Your task to perform on an android device: toggle location history Image 0: 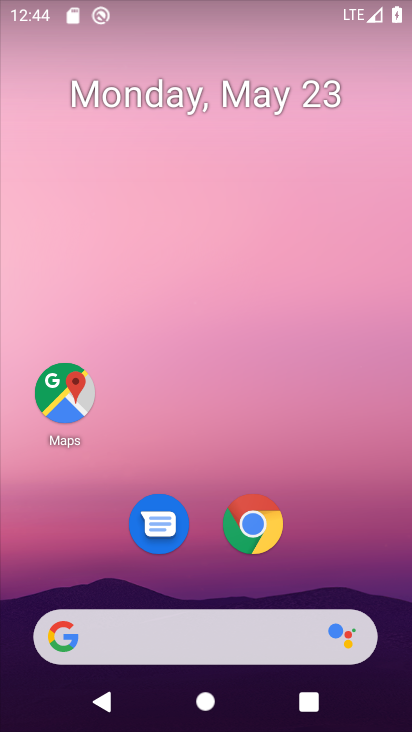
Step 0: drag from (247, 443) to (274, 12)
Your task to perform on an android device: toggle location history Image 1: 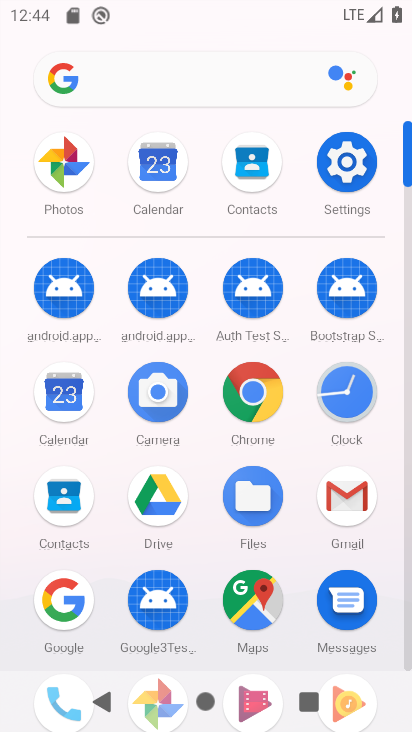
Step 1: click (348, 165)
Your task to perform on an android device: toggle location history Image 2: 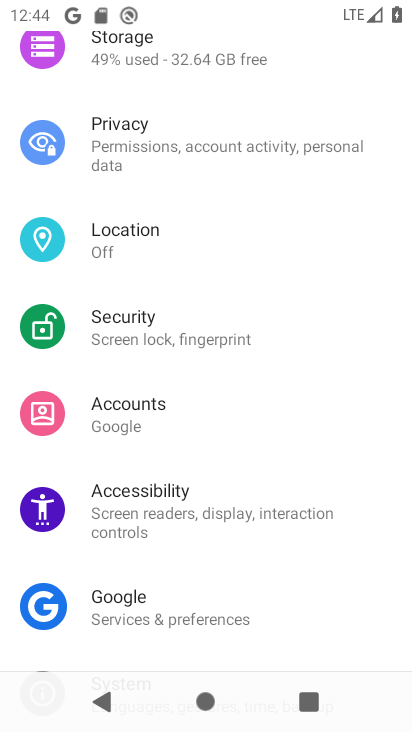
Step 2: drag from (245, 220) to (239, 288)
Your task to perform on an android device: toggle location history Image 3: 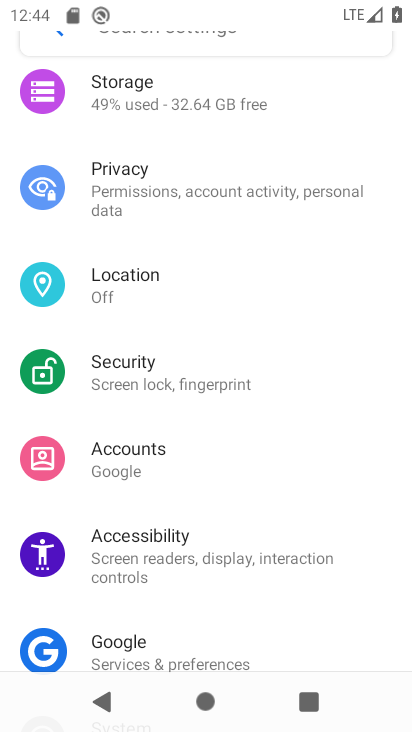
Step 3: click (239, 289)
Your task to perform on an android device: toggle location history Image 4: 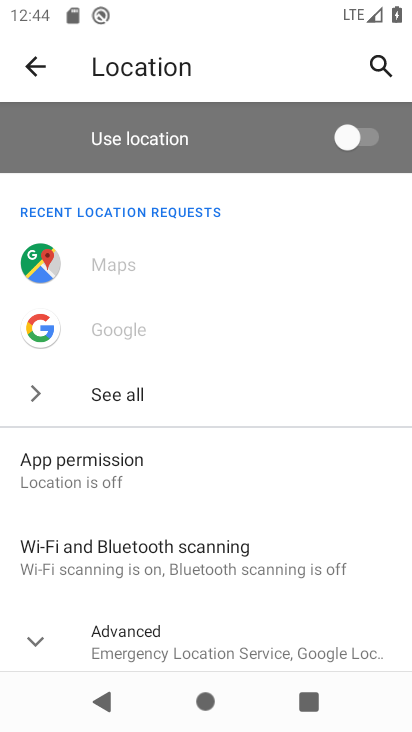
Step 4: click (356, 136)
Your task to perform on an android device: toggle location history Image 5: 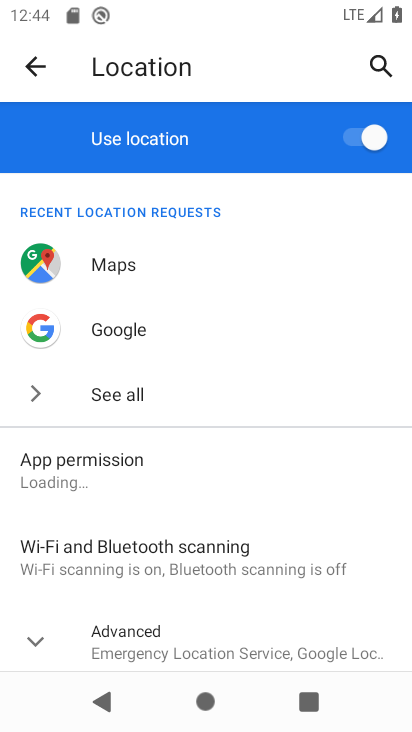
Step 5: click (36, 628)
Your task to perform on an android device: toggle location history Image 6: 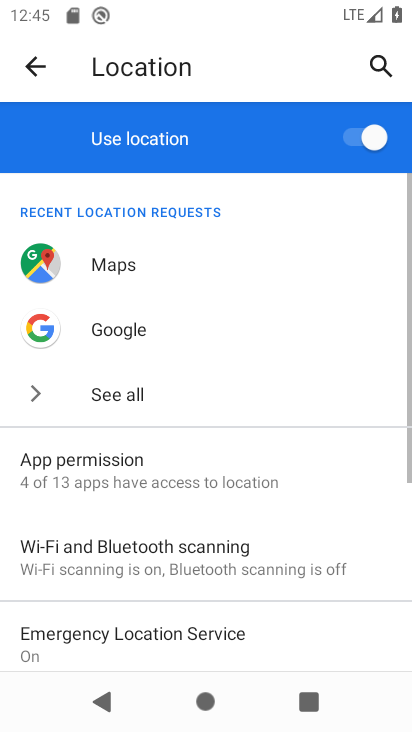
Step 6: drag from (223, 466) to (239, 94)
Your task to perform on an android device: toggle location history Image 7: 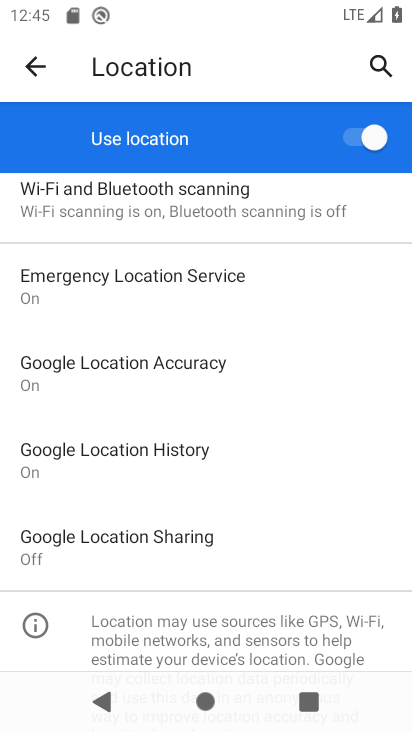
Step 7: click (145, 450)
Your task to perform on an android device: toggle location history Image 8: 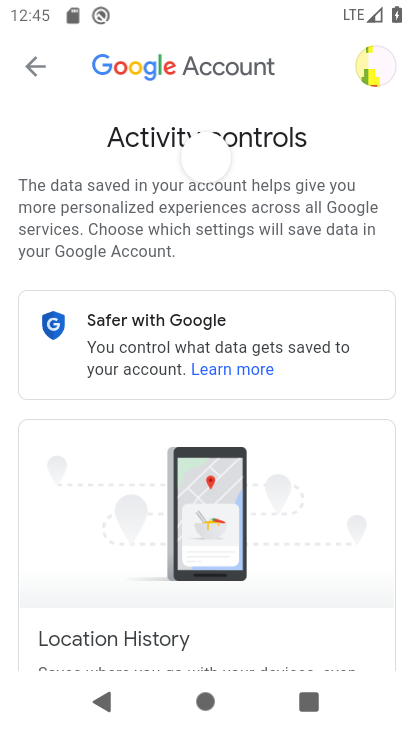
Step 8: drag from (286, 516) to (327, 125)
Your task to perform on an android device: toggle location history Image 9: 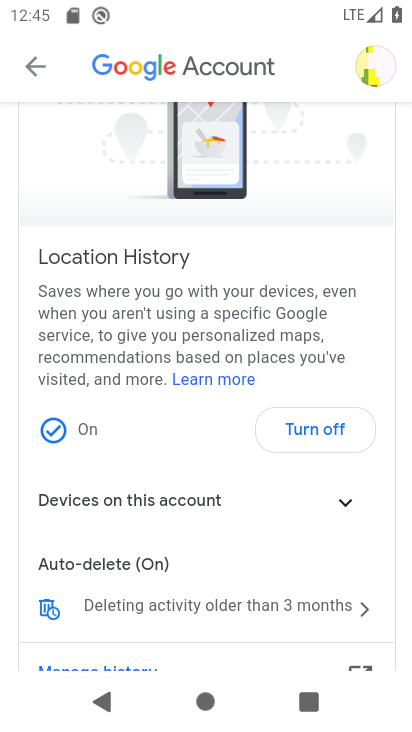
Step 9: click (334, 427)
Your task to perform on an android device: toggle location history Image 10: 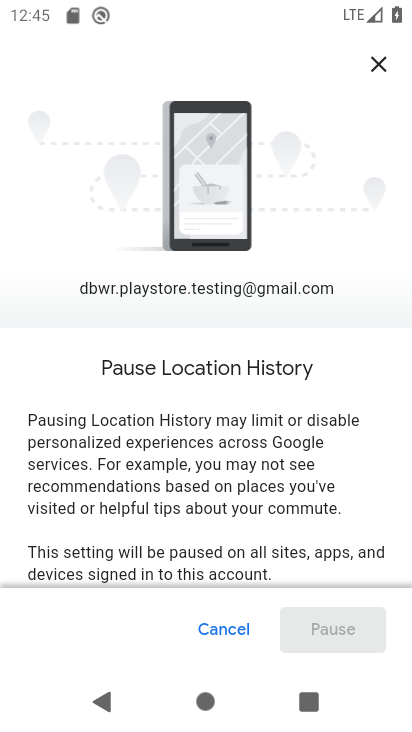
Step 10: drag from (277, 506) to (253, 10)
Your task to perform on an android device: toggle location history Image 11: 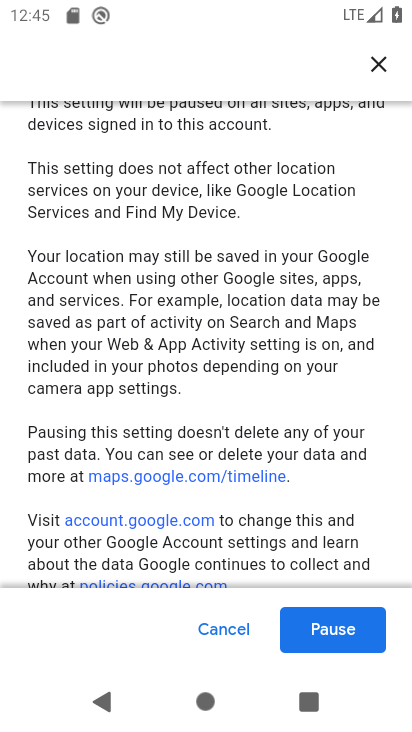
Step 11: click (348, 638)
Your task to perform on an android device: toggle location history Image 12: 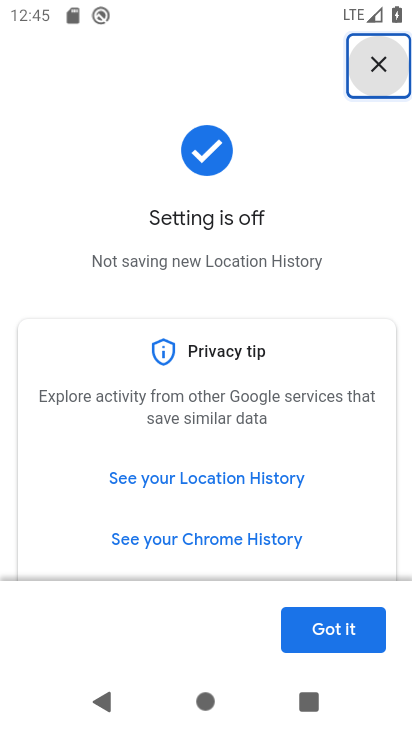
Step 12: click (335, 621)
Your task to perform on an android device: toggle location history Image 13: 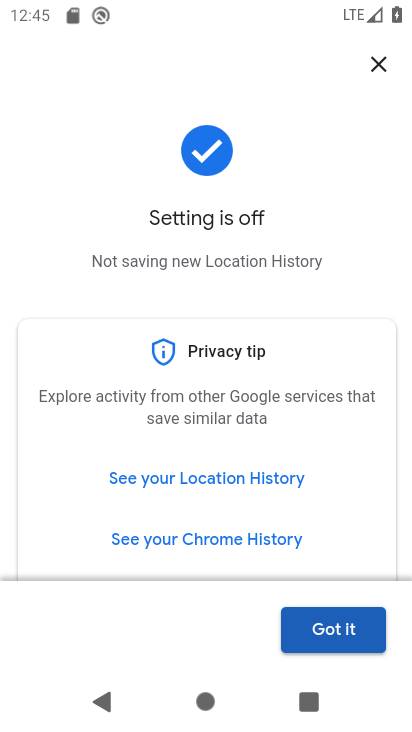
Step 13: click (339, 634)
Your task to perform on an android device: toggle location history Image 14: 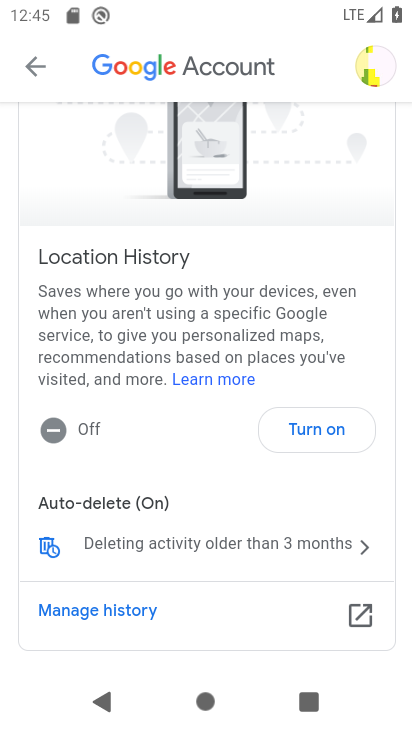
Step 14: task complete